Your task to perform on an android device: Search for Mexican restaurants on Maps Image 0: 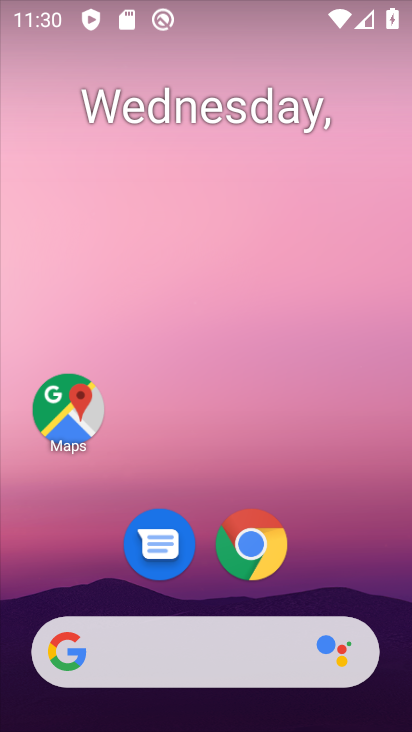
Step 0: drag from (265, 682) to (242, 262)
Your task to perform on an android device: Search for Mexican restaurants on Maps Image 1: 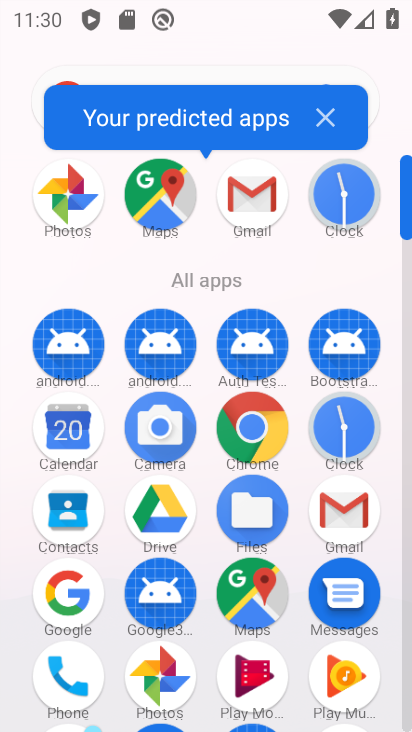
Step 1: click (149, 184)
Your task to perform on an android device: Search for Mexican restaurants on Maps Image 2: 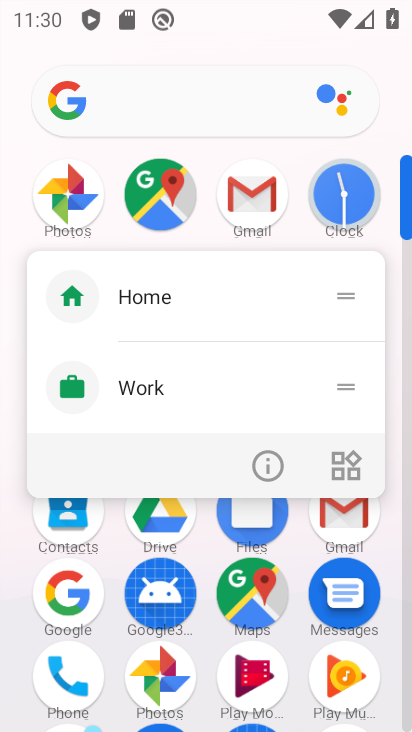
Step 2: click (152, 190)
Your task to perform on an android device: Search for Mexican restaurants on Maps Image 3: 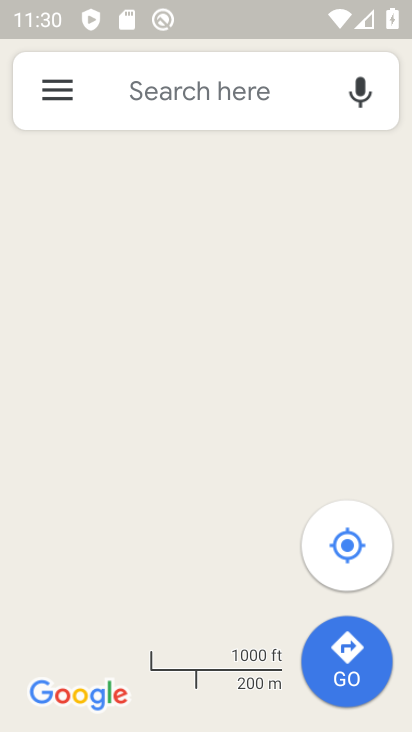
Step 3: click (182, 83)
Your task to perform on an android device: Search for Mexican restaurants on Maps Image 4: 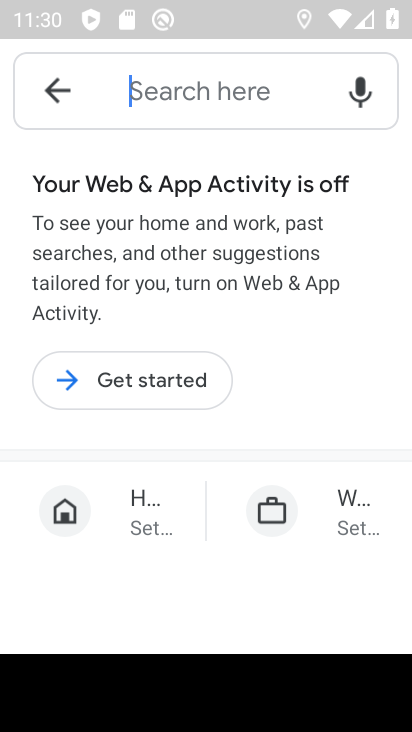
Step 4: click (407, 713)
Your task to perform on an android device: Search for Mexican restaurants on Maps Image 5: 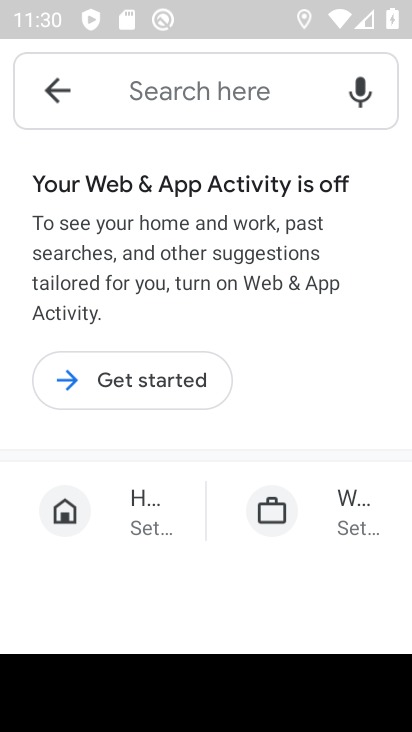
Step 5: drag from (405, 712) to (382, 527)
Your task to perform on an android device: Search for Mexican restaurants on Maps Image 6: 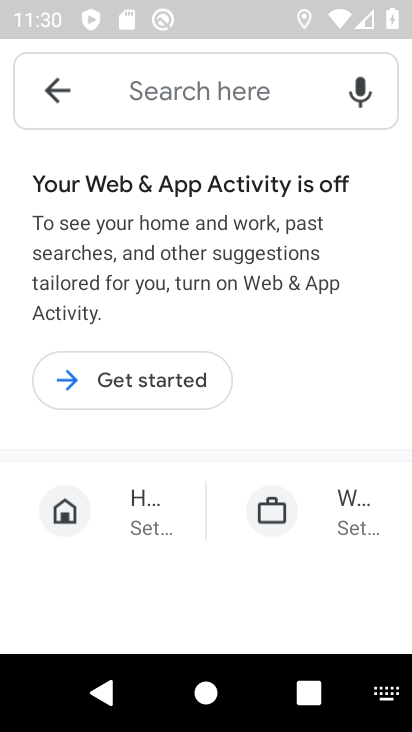
Step 6: click (387, 703)
Your task to perform on an android device: Search for Mexican restaurants on Maps Image 7: 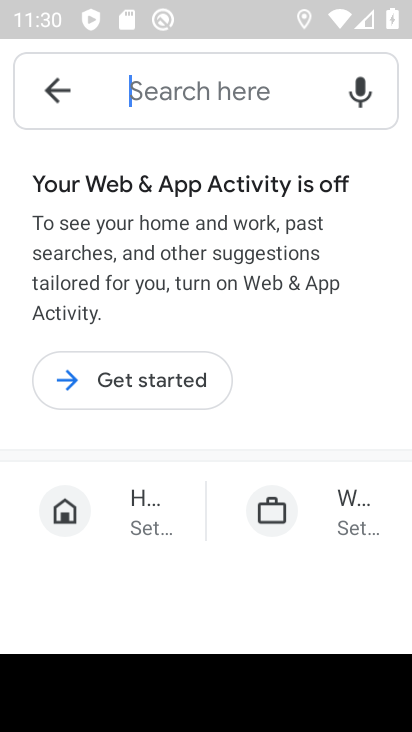
Step 7: drag from (386, 701) to (385, 462)
Your task to perform on an android device: Search for Mexican restaurants on Maps Image 8: 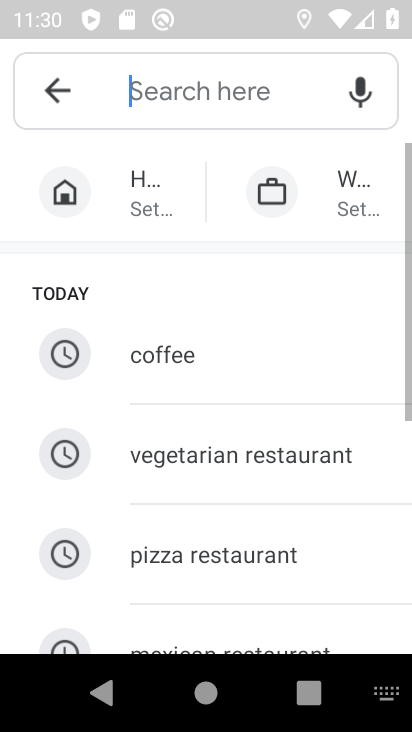
Step 8: click (384, 691)
Your task to perform on an android device: Search for Mexican restaurants on Maps Image 9: 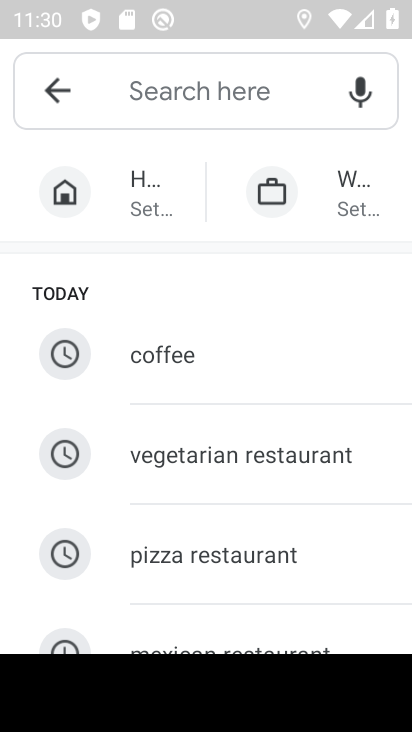
Step 9: drag from (380, 682) to (379, 392)
Your task to perform on an android device: Search for Mexican restaurants on Maps Image 10: 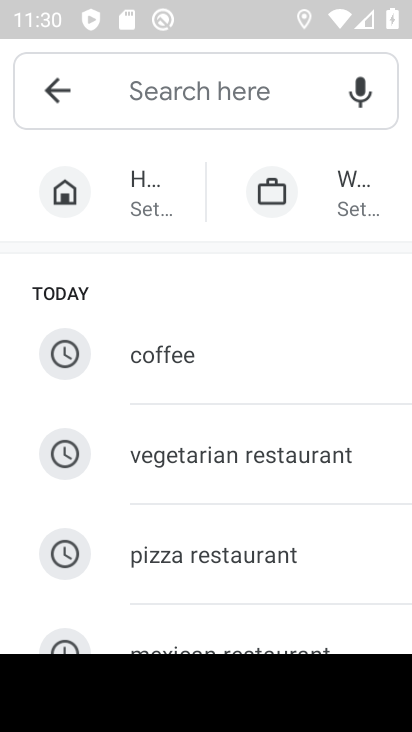
Step 10: drag from (379, 707) to (366, 398)
Your task to perform on an android device: Search for Mexican restaurants on Maps Image 11: 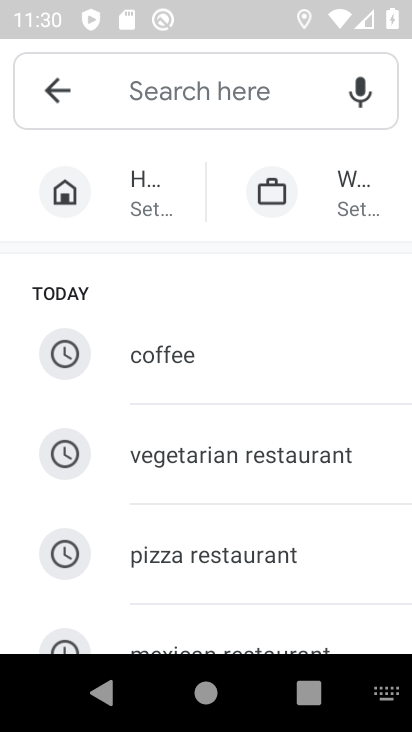
Step 11: click (381, 695)
Your task to perform on an android device: Search for Mexican restaurants on Maps Image 12: 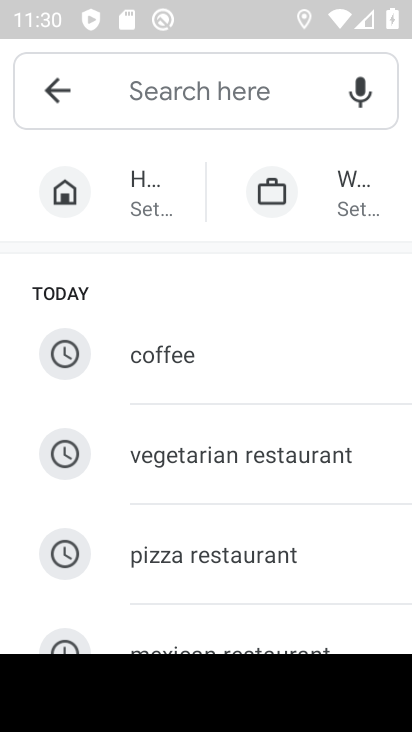
Step 12: drag from (376, 694) to (352, 373)
Your task to perform on an android device: Search for Mexican restaurants on Maps Image 13: 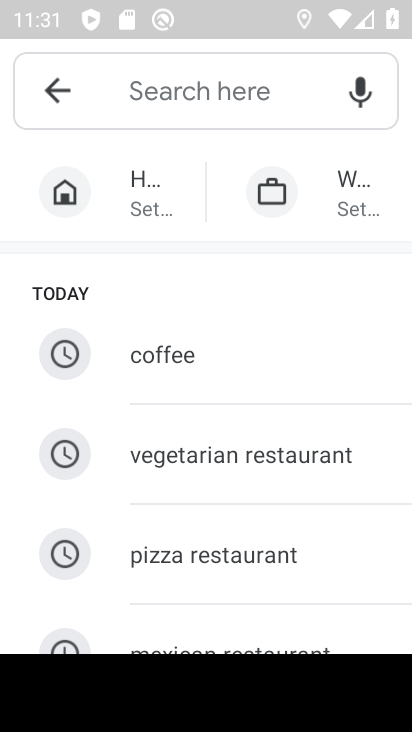
Step 13: drag from (384, 689) to (378, 599)
Your task to perform on an android device: Search for Mexican restaurants on Maps Image 14: 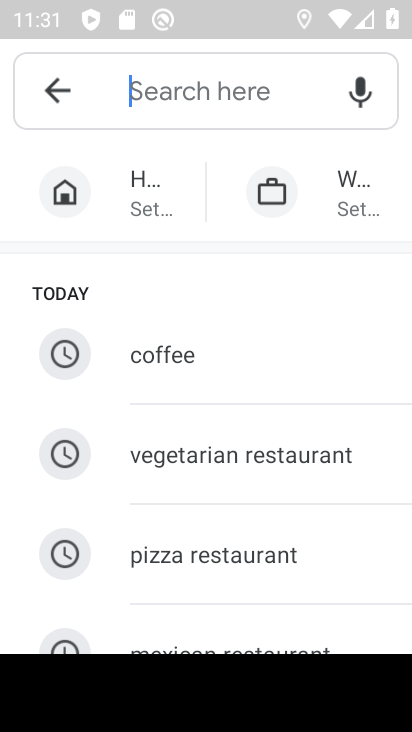
Step 14: drag from (384, 701) to (376, 555)
Your task to perform on an android device: Search for Mexican restaurants on Maps Image 15: 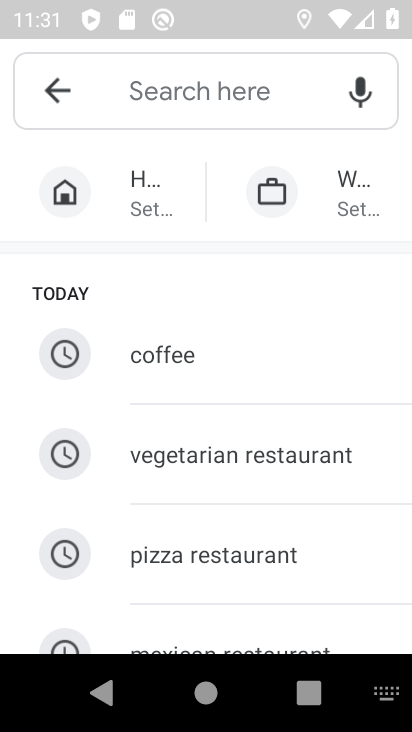
Step 15: click (385, 702)
Your task to perform on an android device: Search for Mexican restaurants on Maps Image 16: 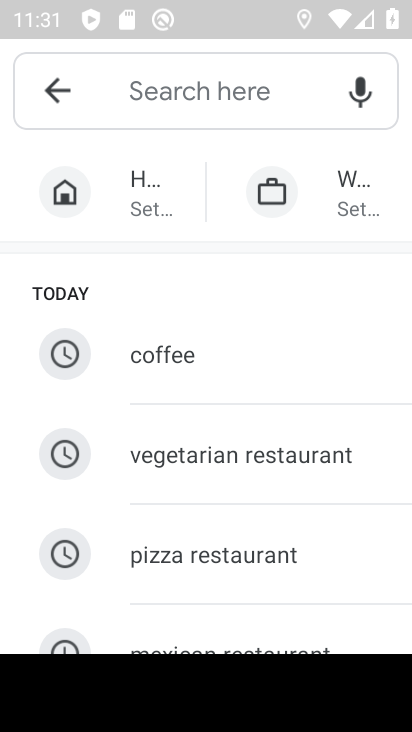
Step 16: drag from (204, 522) to (211, 165)
Your task to perform on an android device: Search for Mexican restaurants on Maps Image 17: 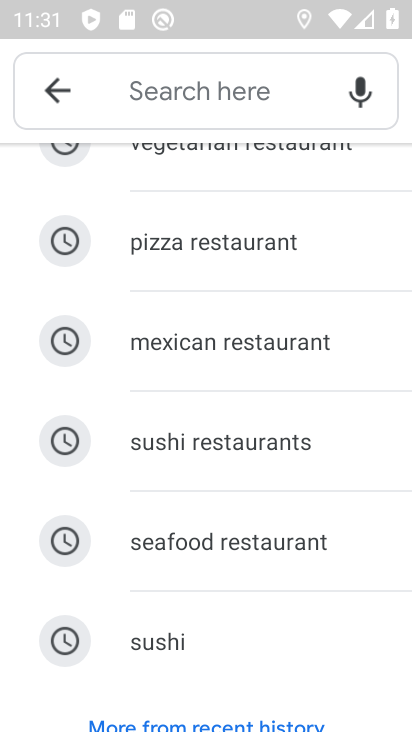
Step 17: click (157, 722)
Your task to perform on an android device: Search for Mexican restaurants on Maps Image 18: 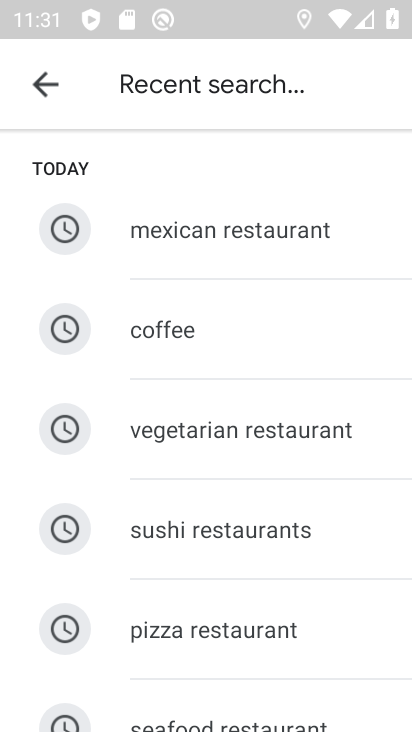
Step 18: drag from (155, 634) to (167, 544)
Your task to perform on an android device: Search for Mexican restaurants on Maps Image 19: 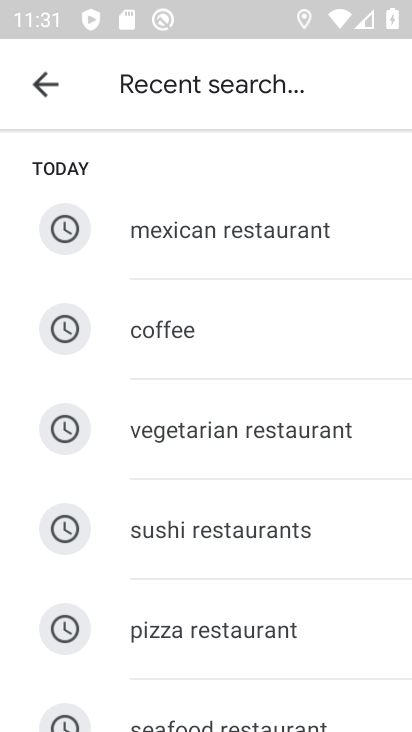
Step 19: click (196, 195)
Your task to perform on an android device: Search for Mexican restaurants on Maps Image 20: 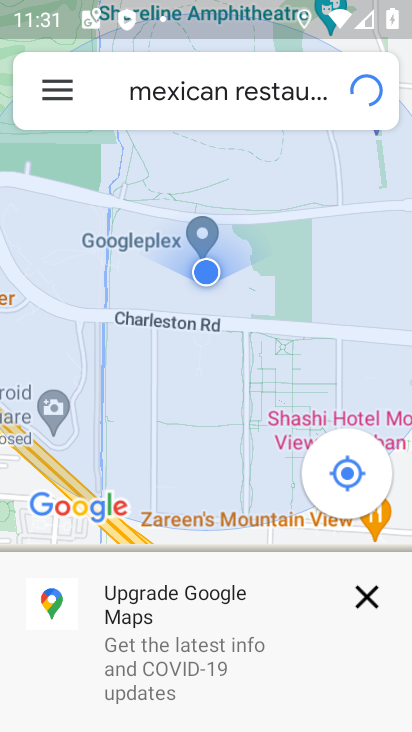
Step 20: click (371, 596)
Your task to perform on an android device: Search for Mexican restaurants on Maps Image 21: 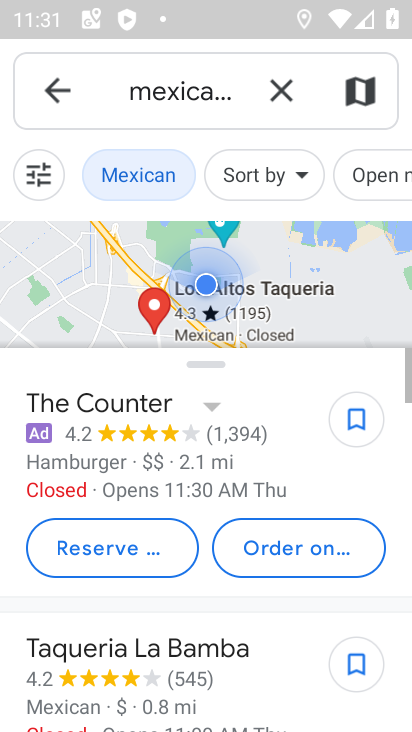
Step 21: task complete